Your task to perform on an android device: Open Wikipedia Image 0: 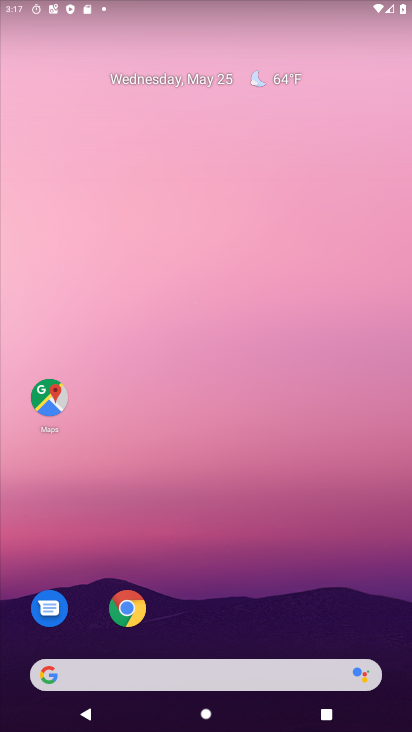
Step 0: drag from (230, 608) to (207, 83)
Your task to perform on an android device: Open Wikipedia Image 1: 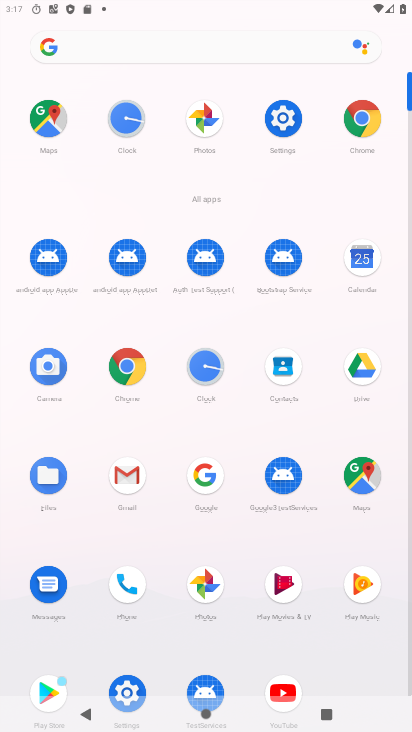
Step 1: click (129, 361)
Your task to perform on an android device: Open Wikipedia Image 2: 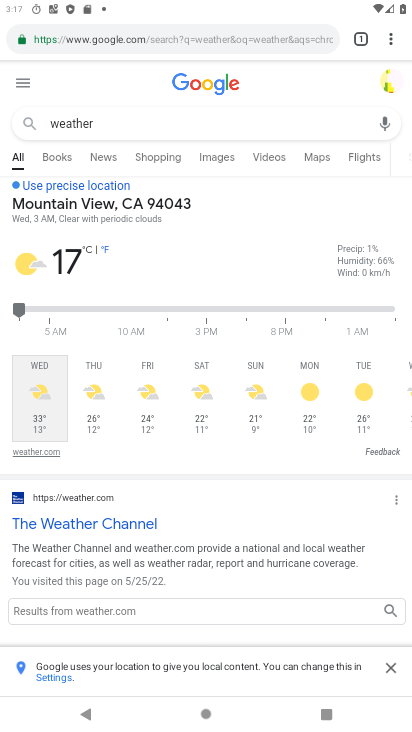
Step 2: click (148, 31)
Your task to perform on an android device: Open Wikipedia Image 3: 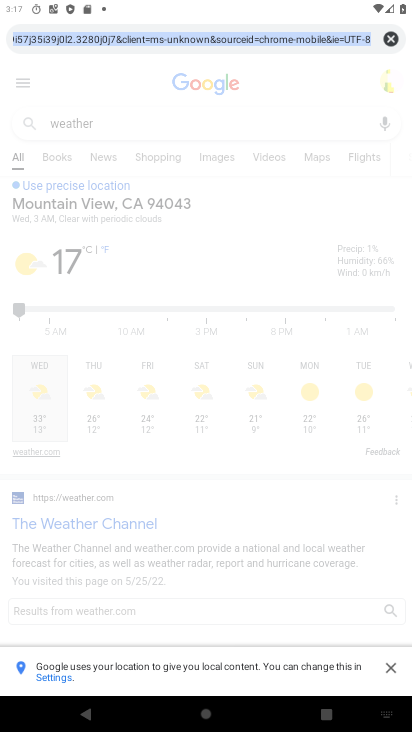
Step 3: click (396, 34)
Your task to perform on an android device: Open Wikipedia Image 4: 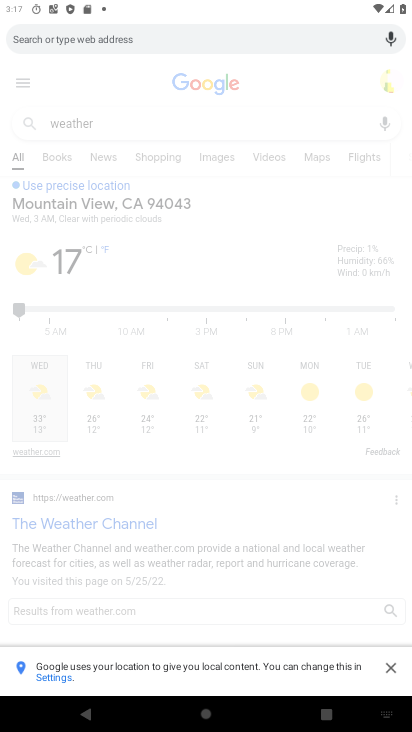
Step 4: type "wikipedia"
Your task to perform on an android device: Open Wikipedia Image 5: 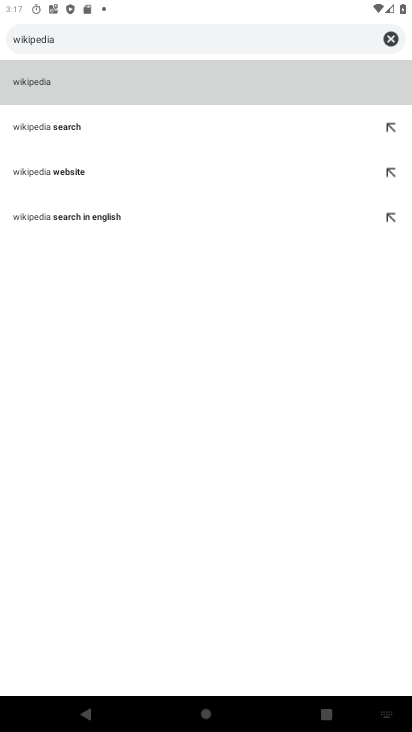
Step 5: click (21, 93)
Your task to perform on an android device: Open Wikipedia Image 6: 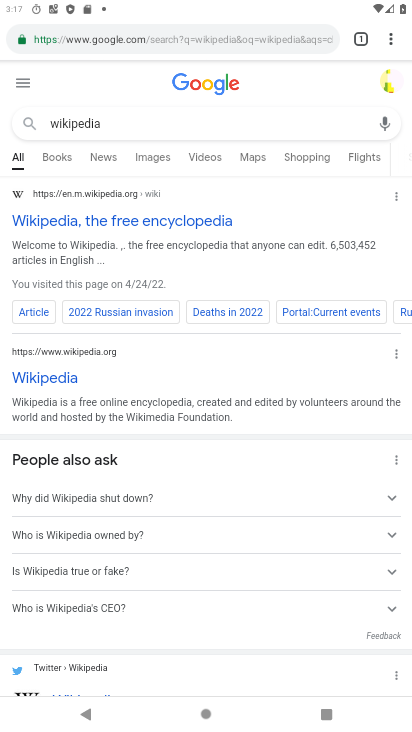
Step 6: click (118, 220)
Your task to perform on an android device: Open Wikipedia Image 7: 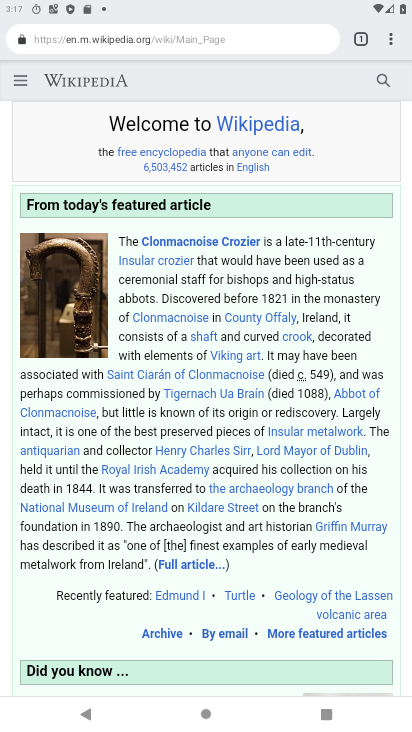
Step 7: task complete